Your task to perform on an android device: change notifications settings Image 0: 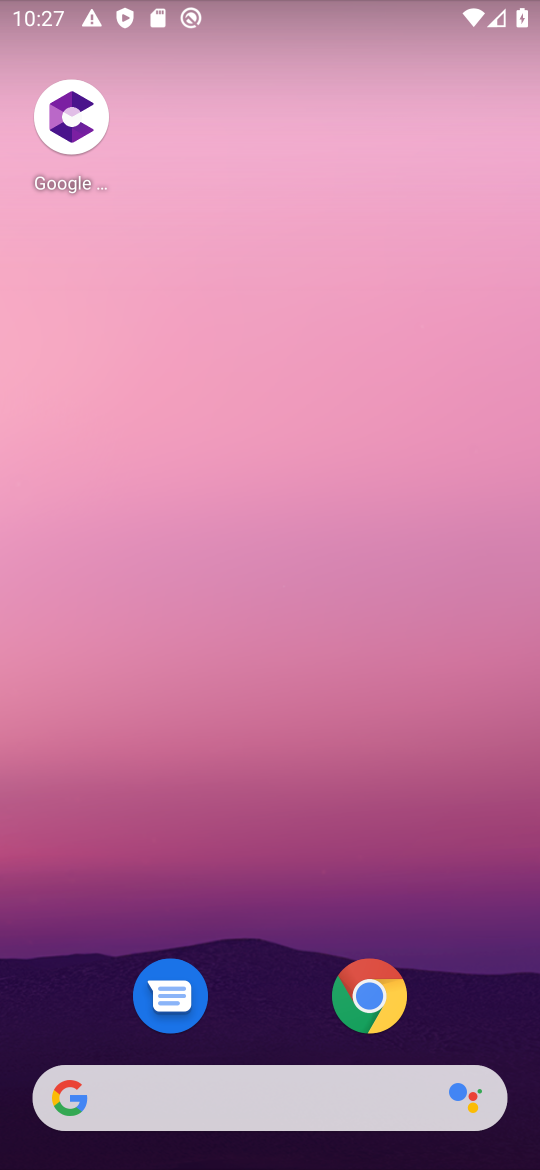
Step 0: drag from (311, 1024) to (480, 267)
Your task to perform on an android device: change notifications settings Image 1: 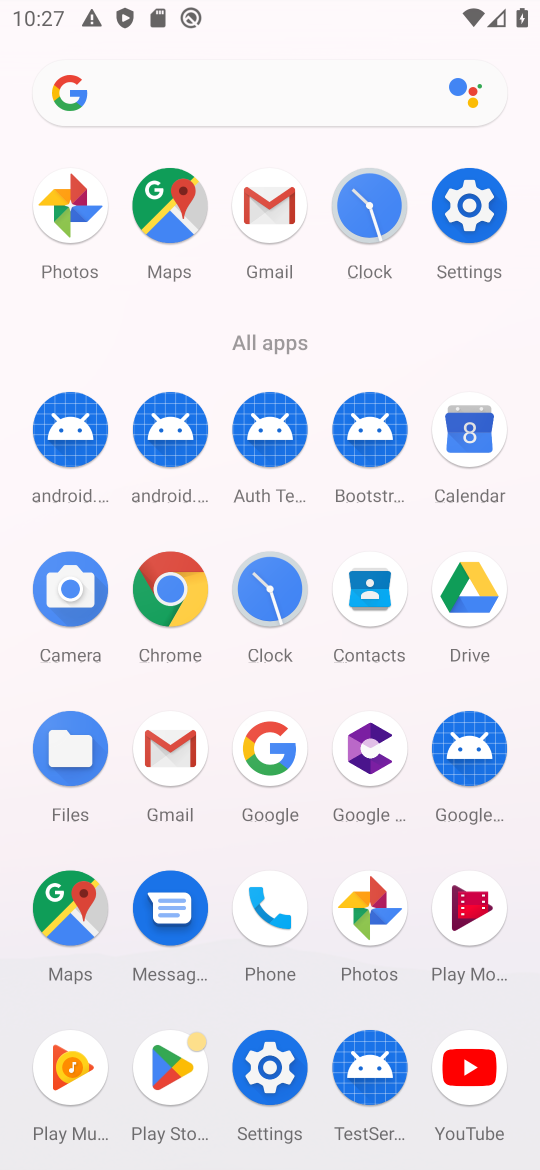
Step 1: click (262, 1066)
Your task to perform on an android device: change notifications settings Image 2: 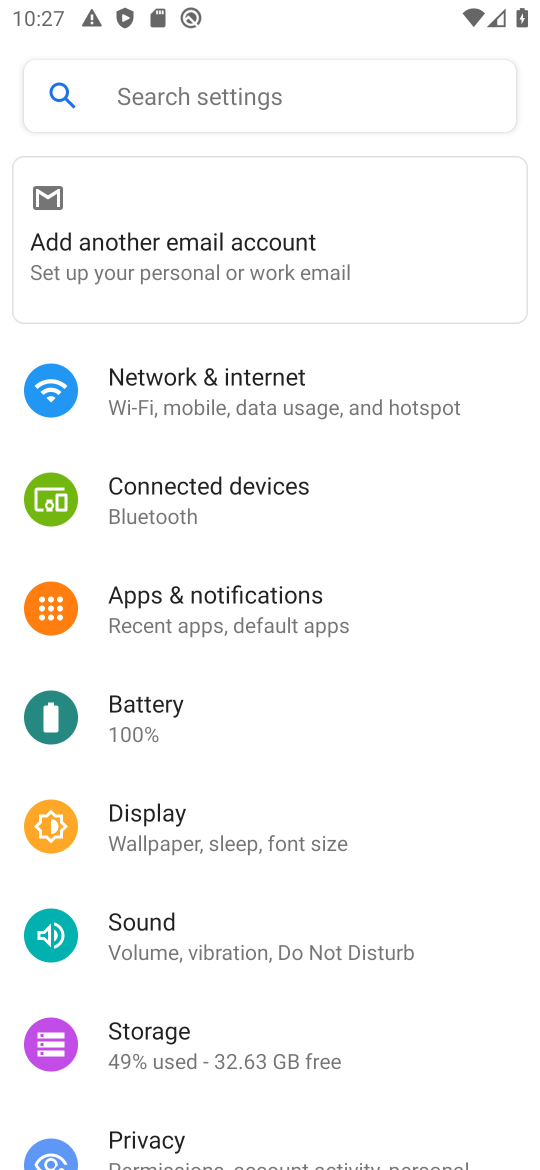
Step 2: click (190, 645)
Your task to perform on an android device: change notifications settings Image 3: 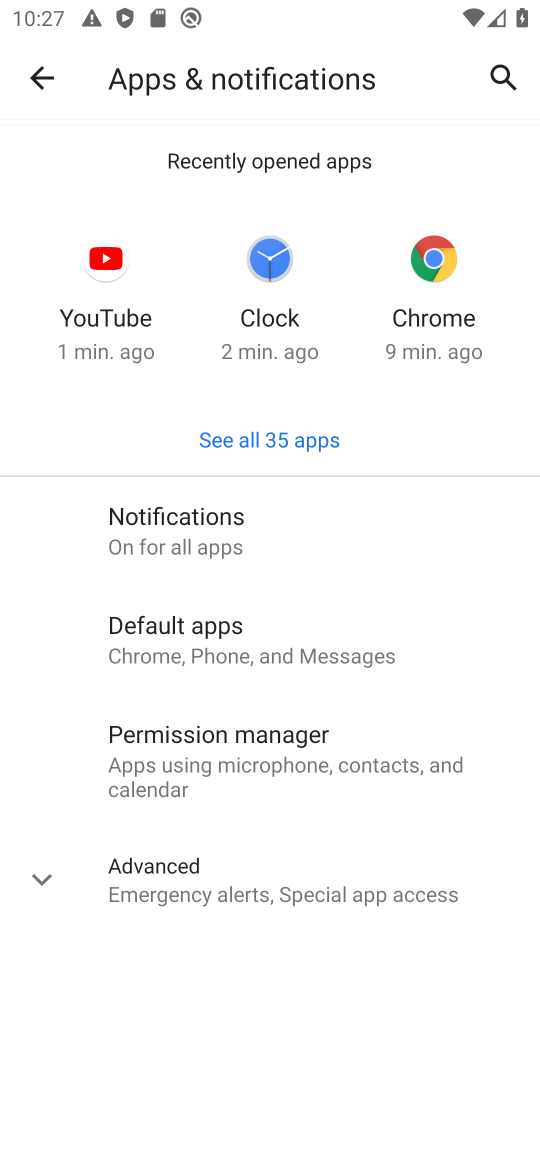
Step 3: click (182, 533)
Your task to perform on an android device: change notifications settings Image 4: 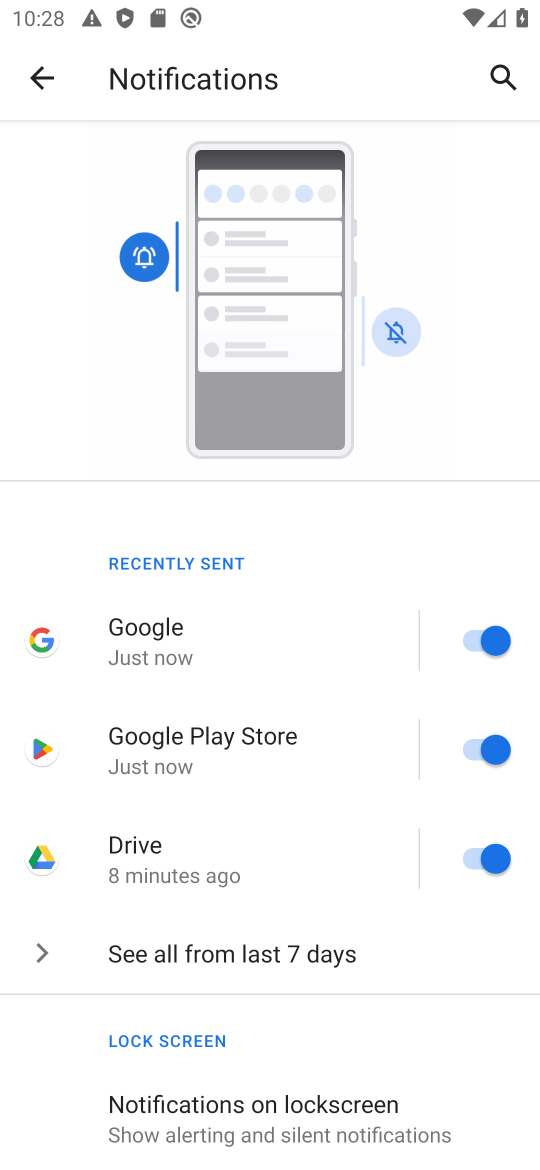
Step 4: drag from (372, 1004) to (304, 342)
Your task to perform on an android device: change notifications settings Image 5: 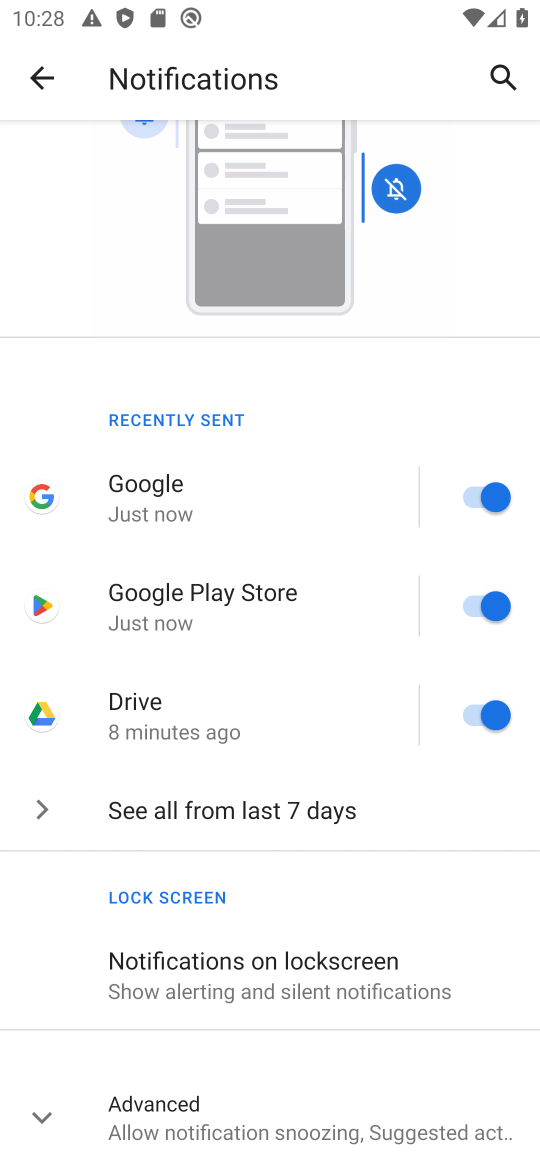
Step 5: click (143, 1113)
Your task to perform on an android device: change notifications settings Image 6: 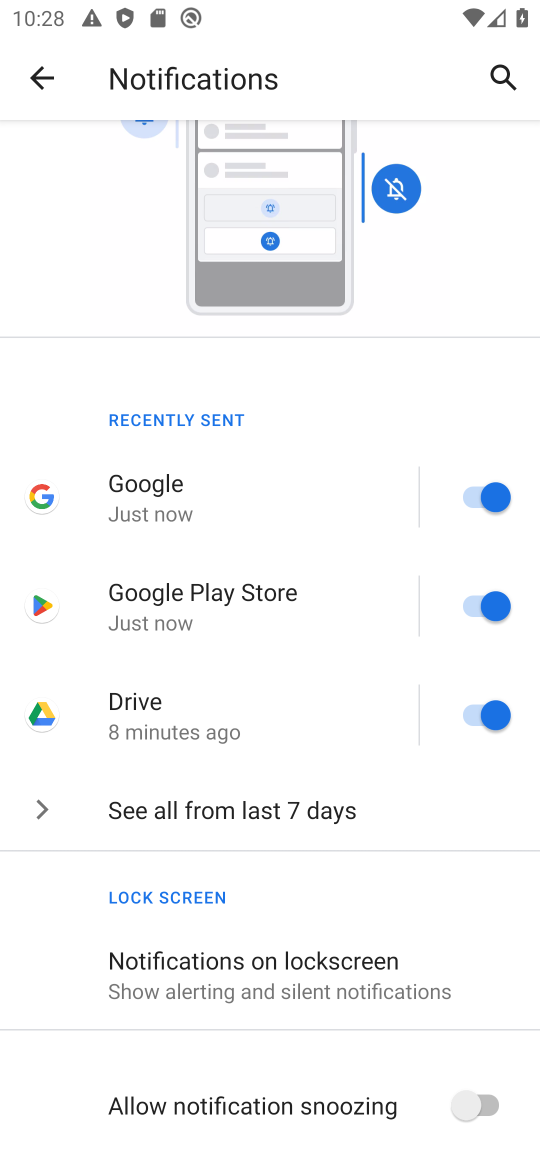
Step 6: click (485, 612)
Your task to perform on an android device: change notifications settings Image 7: 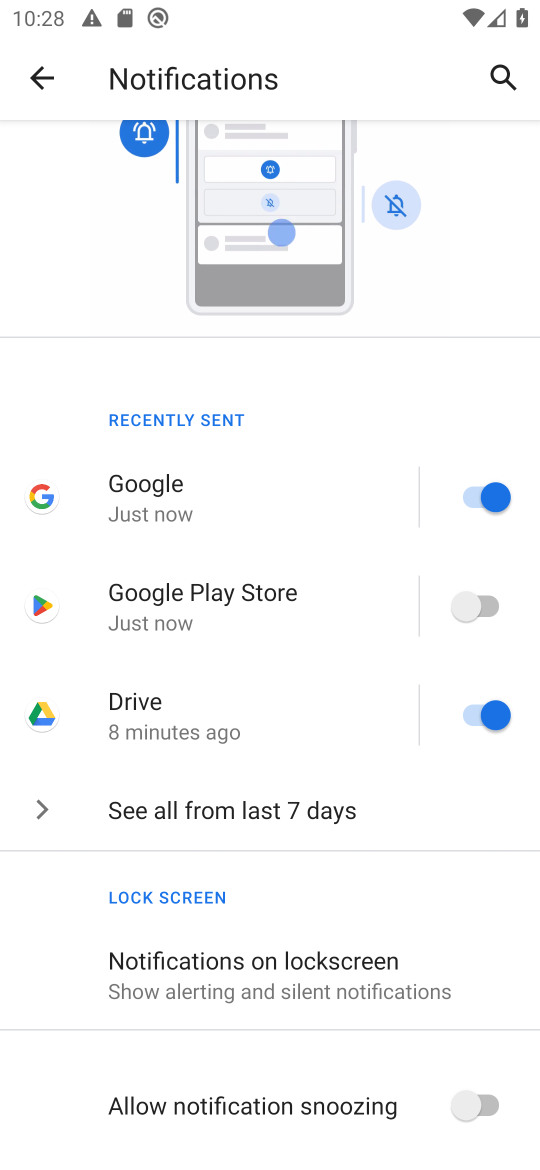
Step 7: task complete